Your task to perform on an android device: Open privacy settings Image 0: 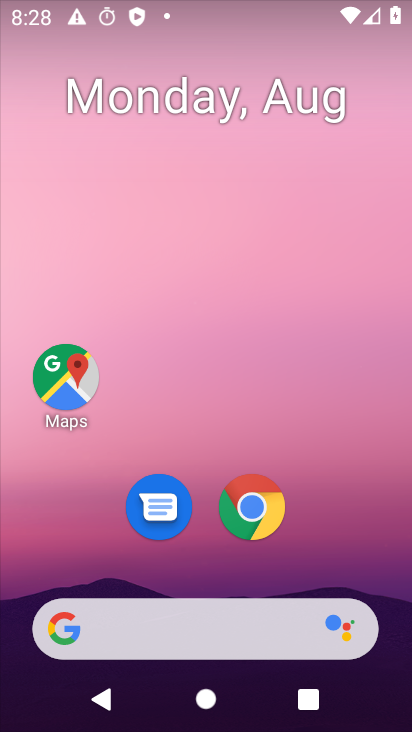
Step 0: drag from (166, 627) to (337, 61)
Your task to perform on an android device: Open privacy settings Image 1: 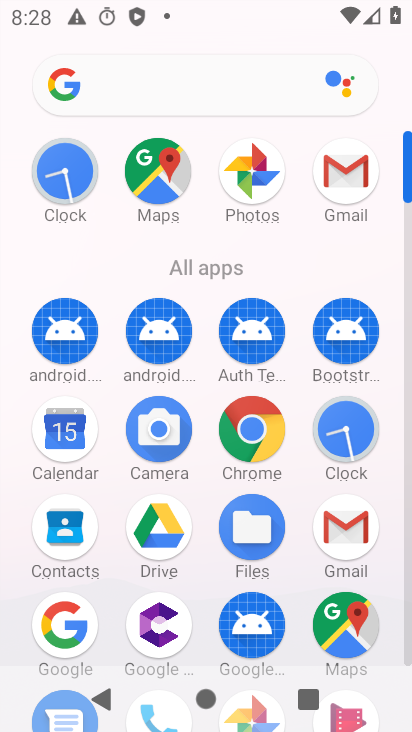
Step 1: drag from (192, 604) to (309, 186)
Your task to perform on an android device: Open privacy settings Image 2: 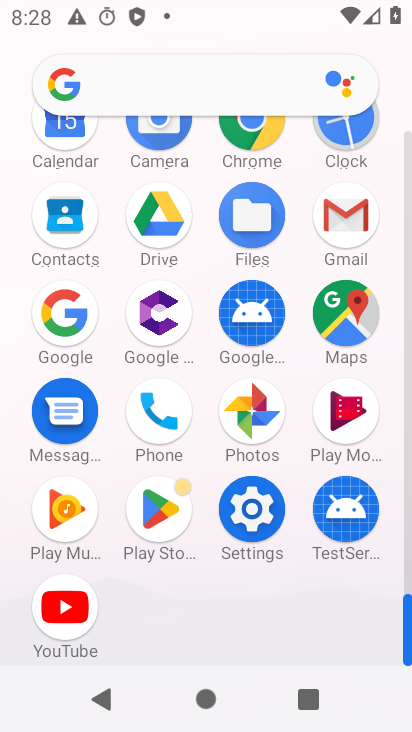
Step 2: drag from (257, 508) to (290, 350)
Your task to perform on an android device: Open privacy settings Image 3: 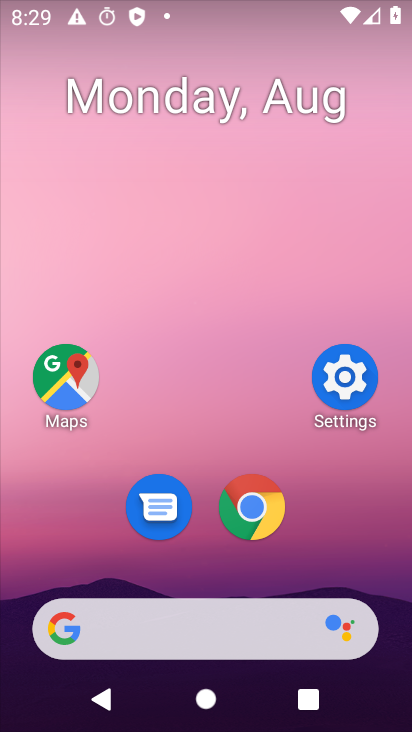
Step 3: click (347, 376)
Your task to perform on an android device: Open privacy settings Image 4: 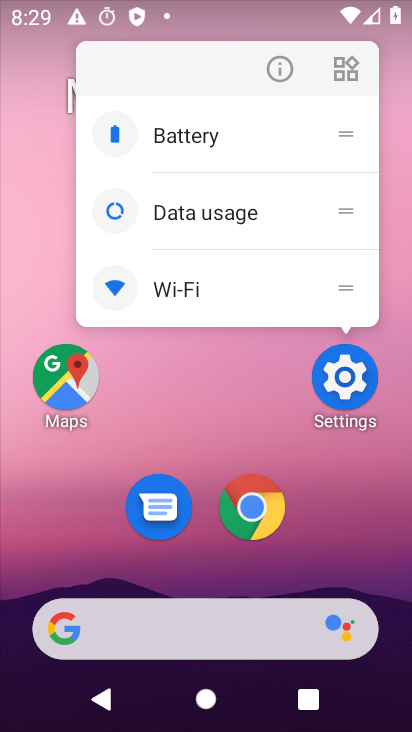
Step 4: click (347, 376)
Your task to perform on an android device: Open privacy settings Image 5: 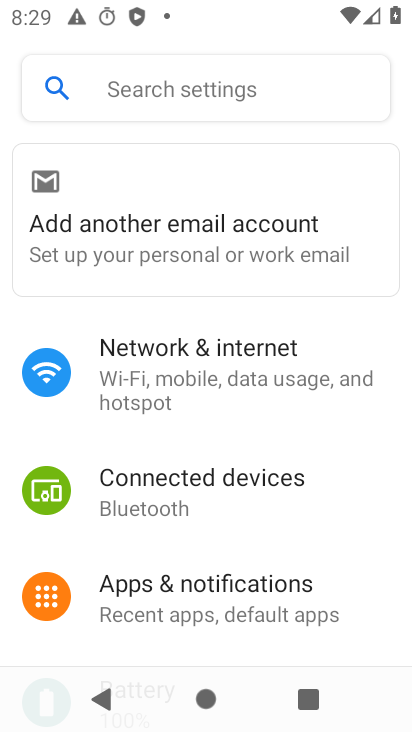
Step 5: drag from (279, 568) to (343, 89)
Your task to perform on an android device: Open privacy settings Image 6: 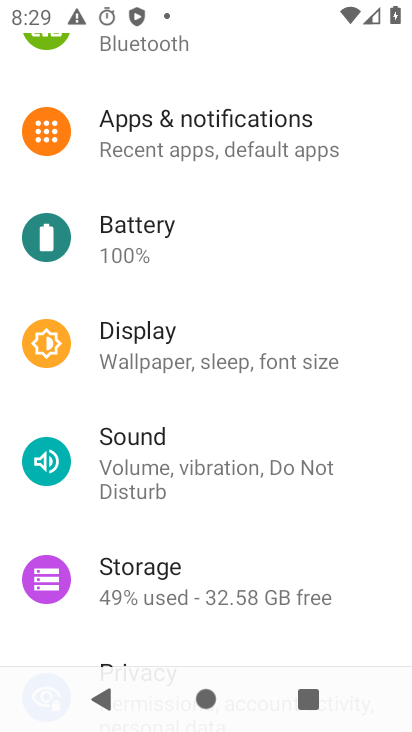
Step 6: drag from (226, 545) to (287, 179)
Your task to perform on an android device: Open privacy settings Image 7: 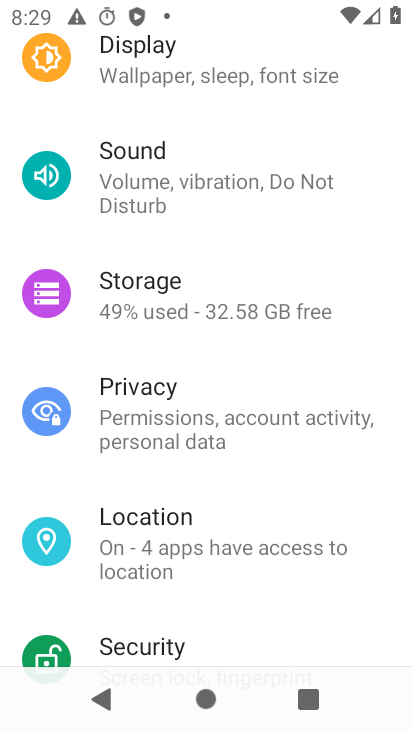
Step 7: click (148, 420)
Your task to perform on an android device: Open privacy settings Image 8: 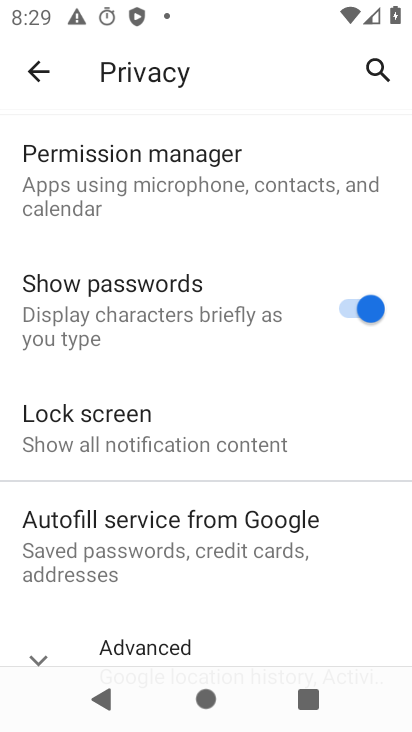
Step 8: task complete